Your task to perform on an android device: Turn on the flashlight Image 0: 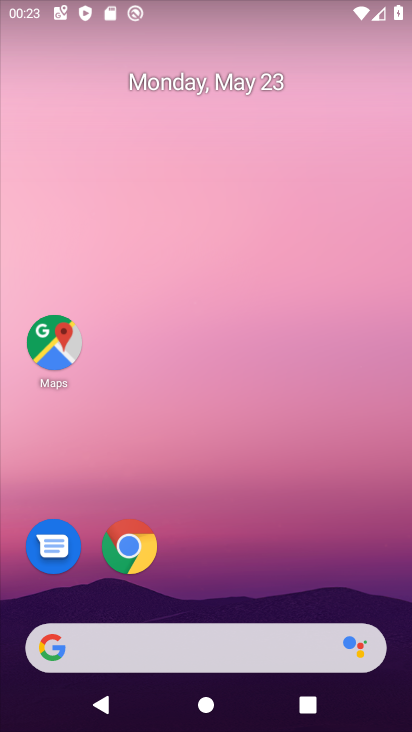
Step 0: click (272, 50)
Your task to perform on an android device: Turn on the flashlight Image 1: 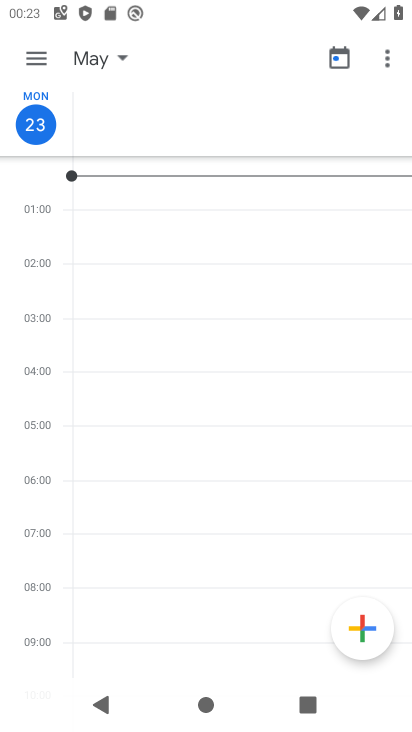
Step 1: press home button
Your task to perform on an android device: Turn on the flashlight Image 2: 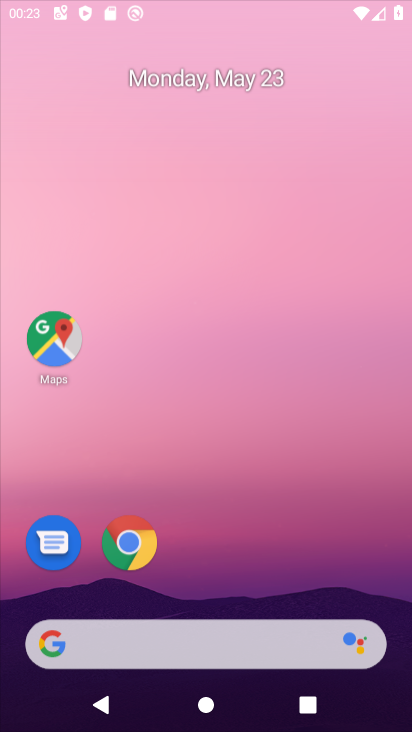
Step 2: drag from (200, 638) to (265, 36)
Your task to perform on an android device: Turn on the flashlight Image 3: 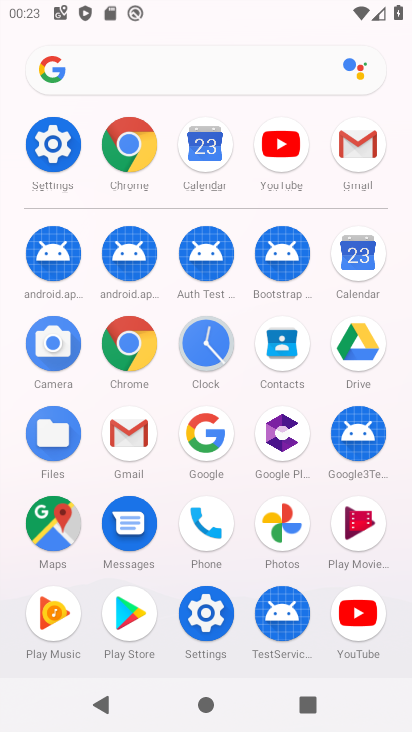
Step 3: click (158, 78)
Your task to perform on an android device: Turn on the flashlight Image 4: 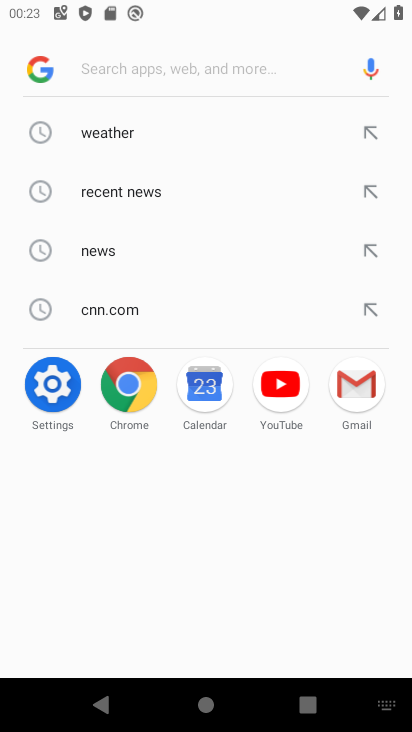
Step 4: press back button
Your task to perform on an android device: Turn on the flashlight Image 5: 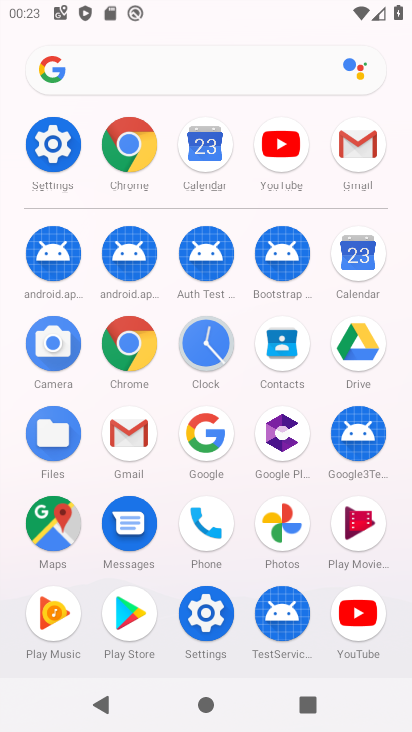
Step 5: click (39, 138)
Your task to perform on an android device: Turn on the flashlight Image 6: 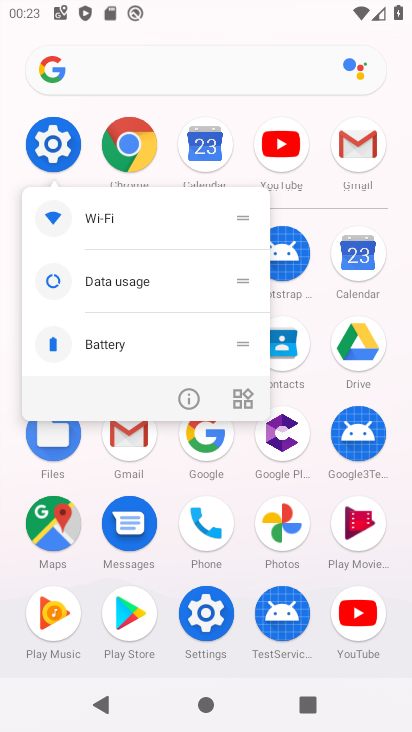
Step 6: click (189, 399)
Your task to perform on an android device: Turn on the flashlight Image 7: 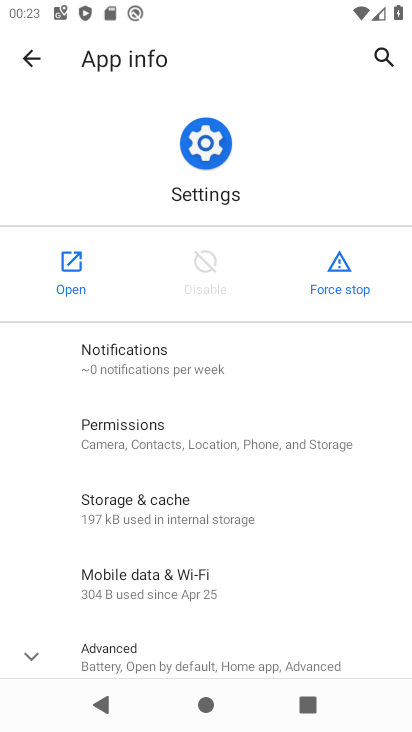
Step 7: click (68, 267)
Your task to perform on an android device: Turn on the flashlight Image 8: 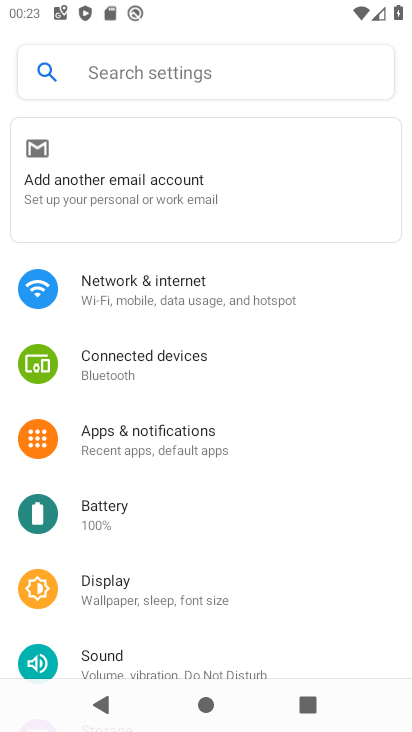
Step 8: drag from (179, 588) to (296, 672)
Your task to perform on an android device: Turn on the flashlight Image 9: 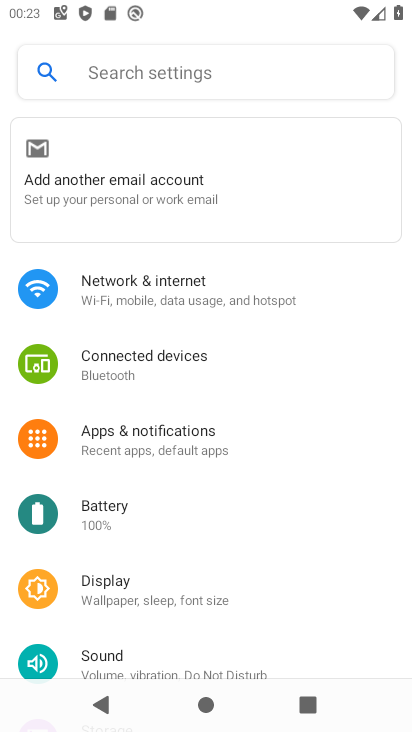
Step 9: click (182, 73)
Your task to perform on an android device: Turn on the flashlight Image 10: 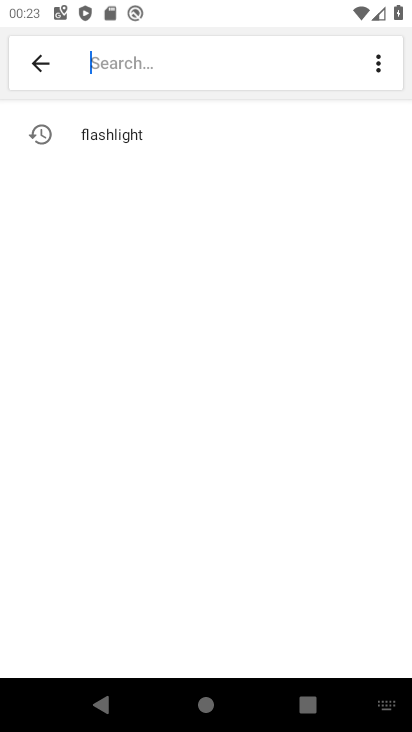
Step 10: click (115, 126)
Your task to perform on an android device: Turn on the flashlight Image 11: 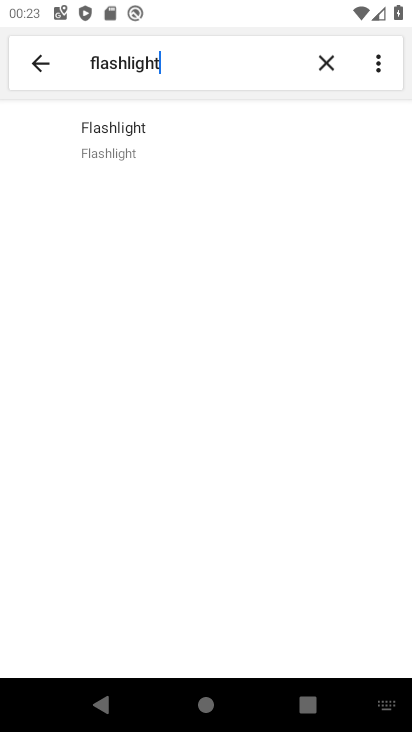
Step 11: task complete